Your task to perform on an android device: change the clock display to digital Image 0: 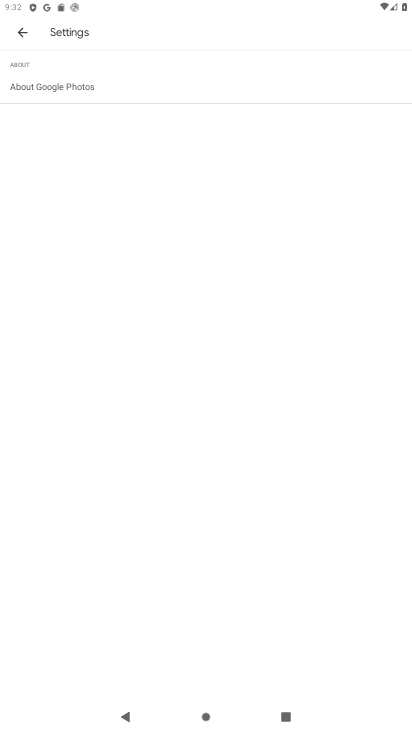
Step 0: press home button
Your task to perform on an android device: change the clock display to digital Image 1: 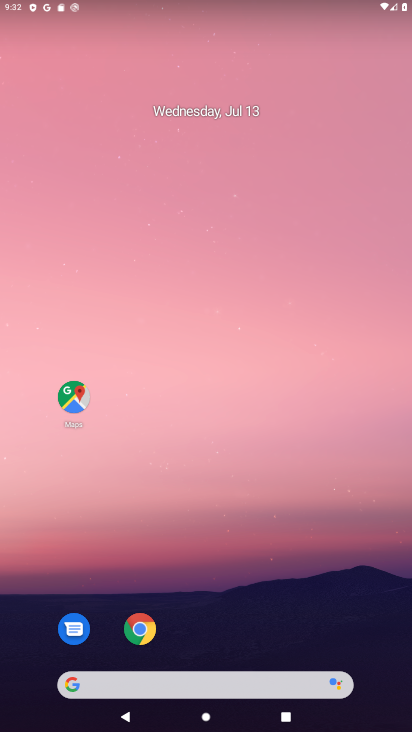
Step 1: drag from (271, 627) to (148, 205)
Your task to perform on an android device: change the clock display to digital Image 2: 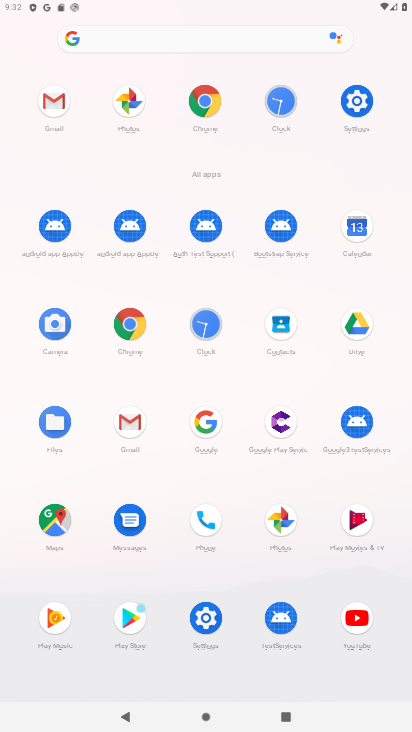
Step 2: click (281, 133)
Your task to perform on an android device: change the clock display to digital Image 3: 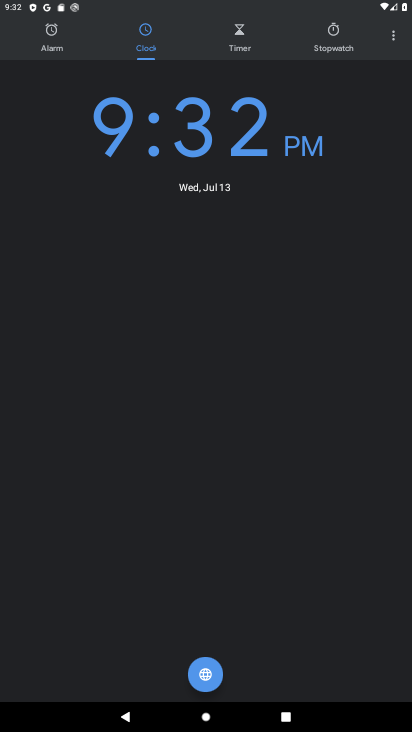
Step 3: click (406, 32)
Your task to perform on an android device: change the clock display to digital Image 4: 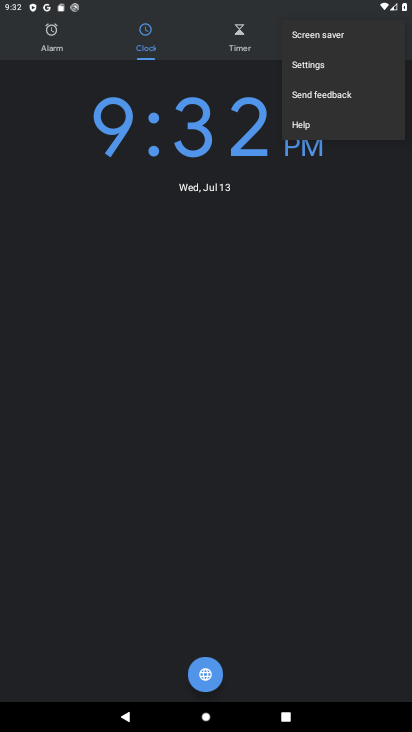
Step 4: click (357, 71)
Your task to perform on an android device: change the clock display to digital Image 5: 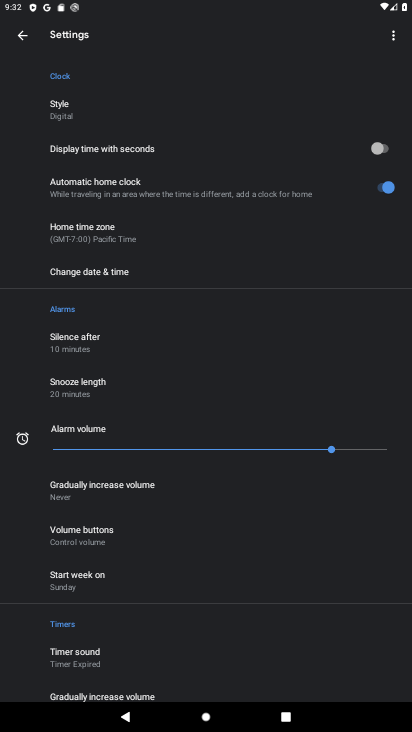
Step 5: click (178, 121)
Your task to perform on an android device: change the clock display to digital Image 6: 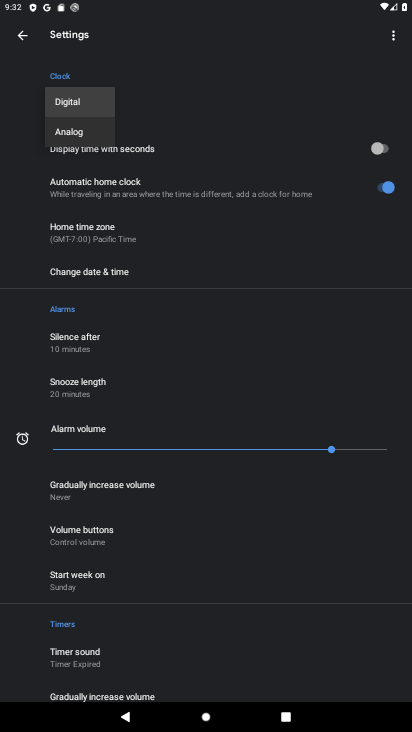
Step 6: click (89, 138)
Your task to perform on an android device: change the clock display to digital Image 7: 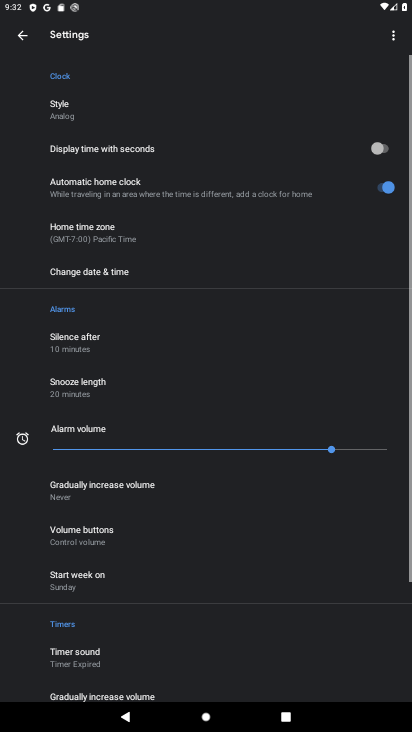
Step 7: click (110, 107)
Your task to perform on an android device: change the clock display to digital Image 8: 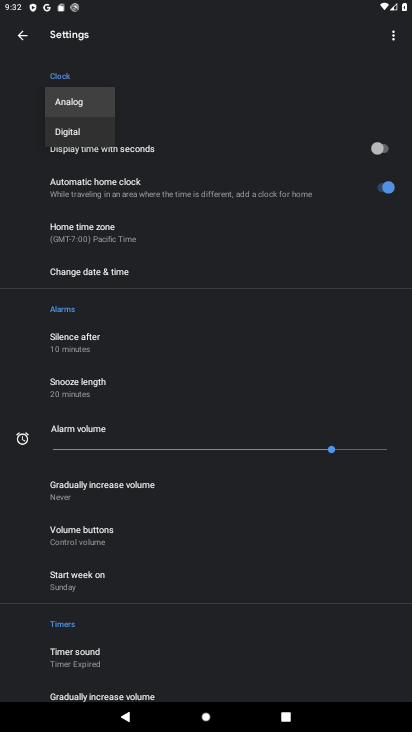
Step 8: click (82, 127)
Your task to perform on an android device: change the clock display to digital Image 9: 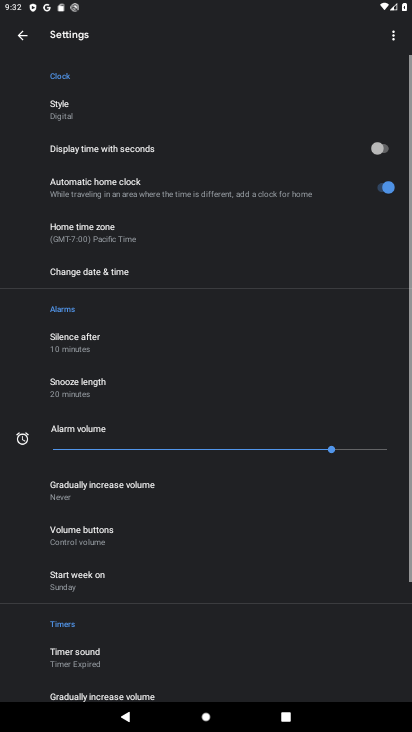
Step 9: task complete